Your task to perform on an android device: What is the capital of the United Kingdom? Image 0: 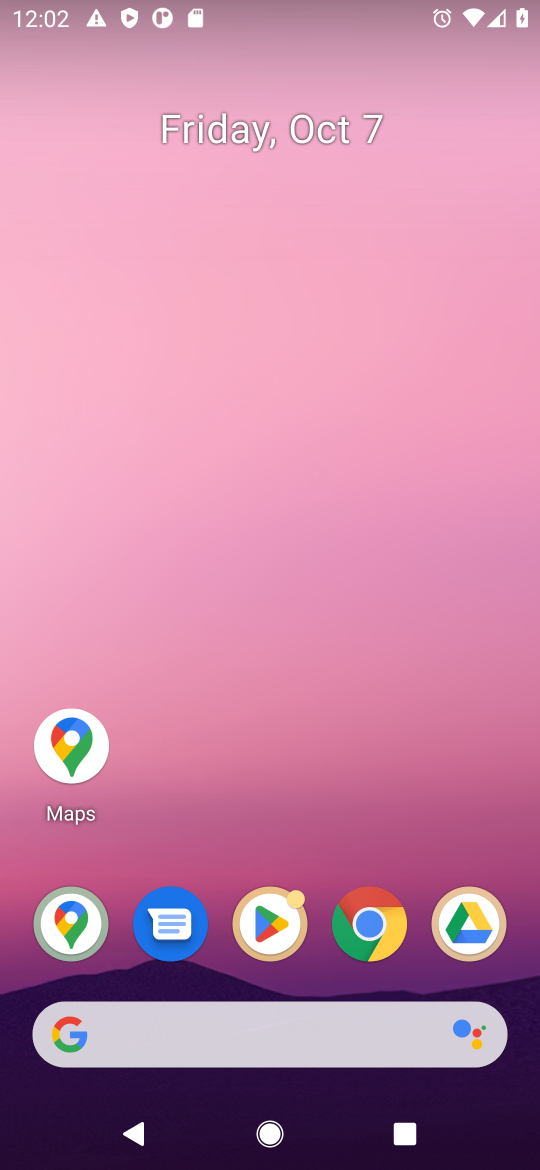
Step 0: click (363, 920)
Your task to perform on an android device: What is the capital of the United Kingdom? Image 1: 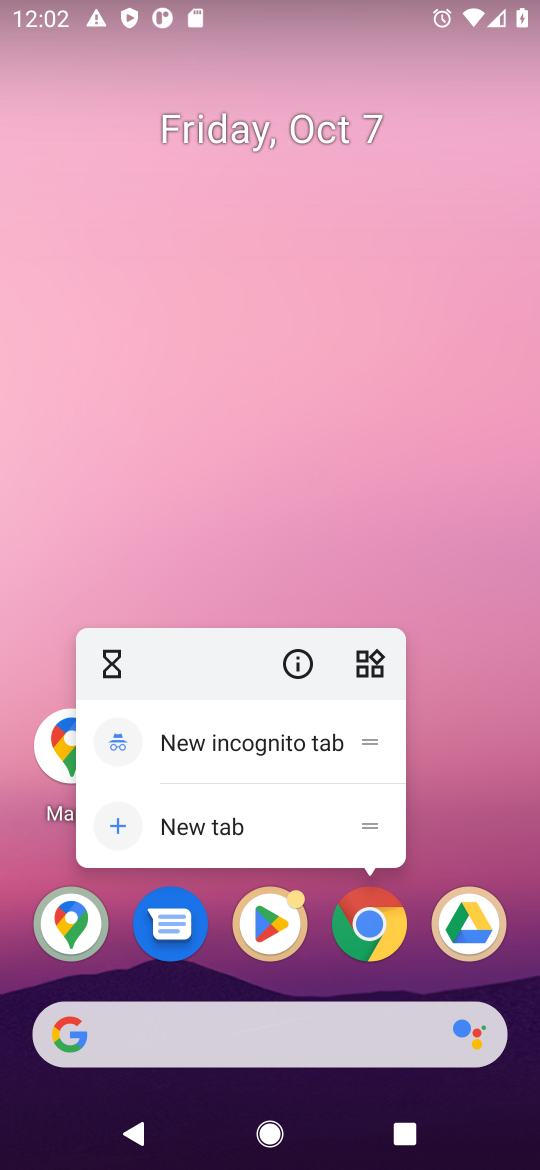
Step 1: click (374, 918)
Your task to perform on an android device: What is the capital of the United Kingdom? Image 2: 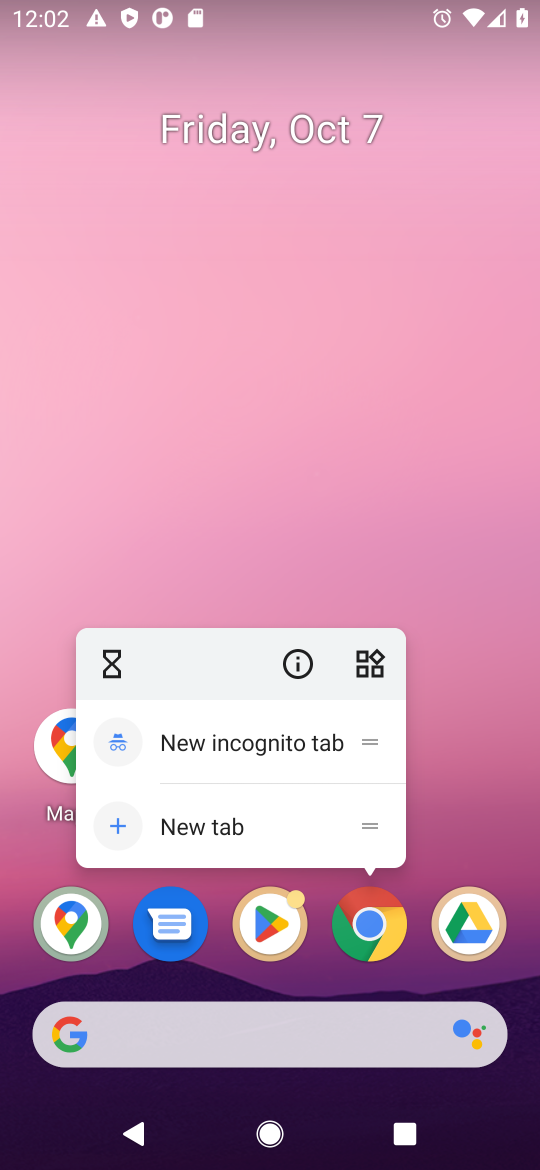
Step 2: click (374, 918)
Your task to perform on an android device: What is the capital of the United Kingdom? Image 3: 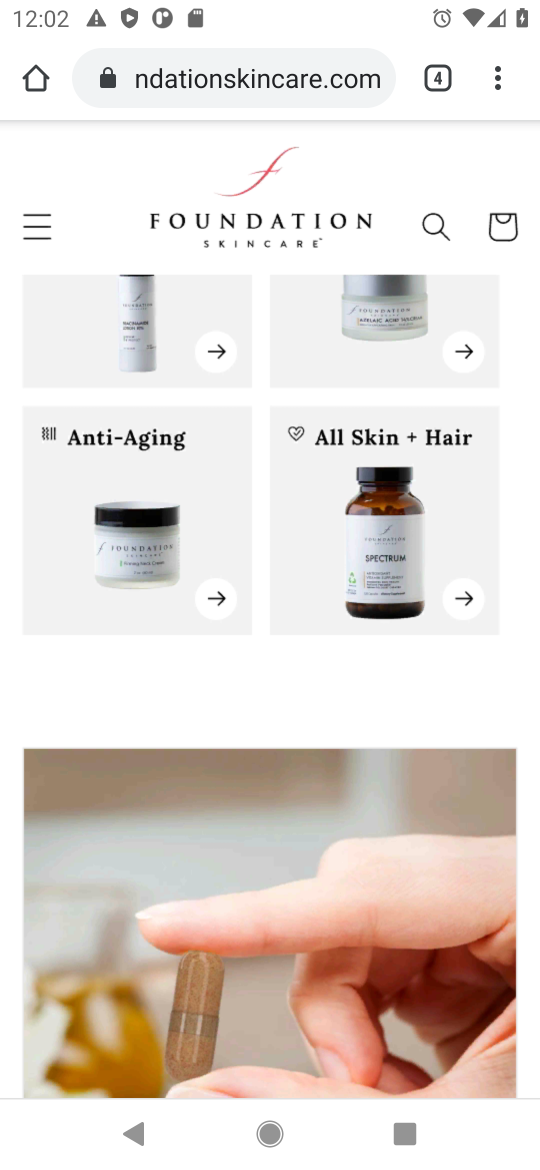
Step 3: click (321, 77)
Your task to perform on an android device: What is the capital of the United Kingdom? Image 4: 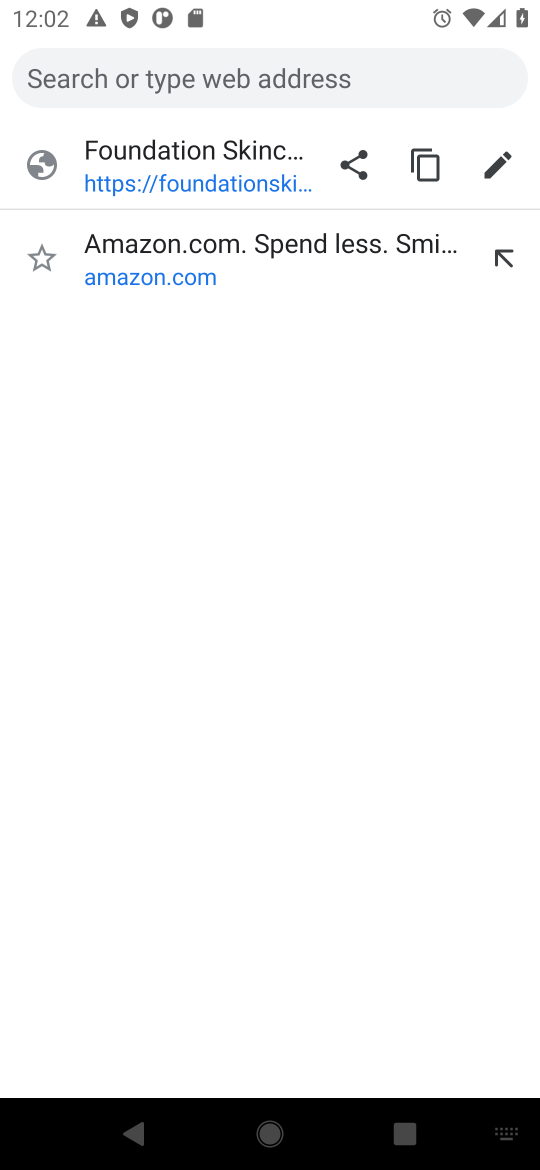
Step 4: click (389, 1167)
Your task to perform on an android device: What is the capital of the United Kingdom? Image 5: 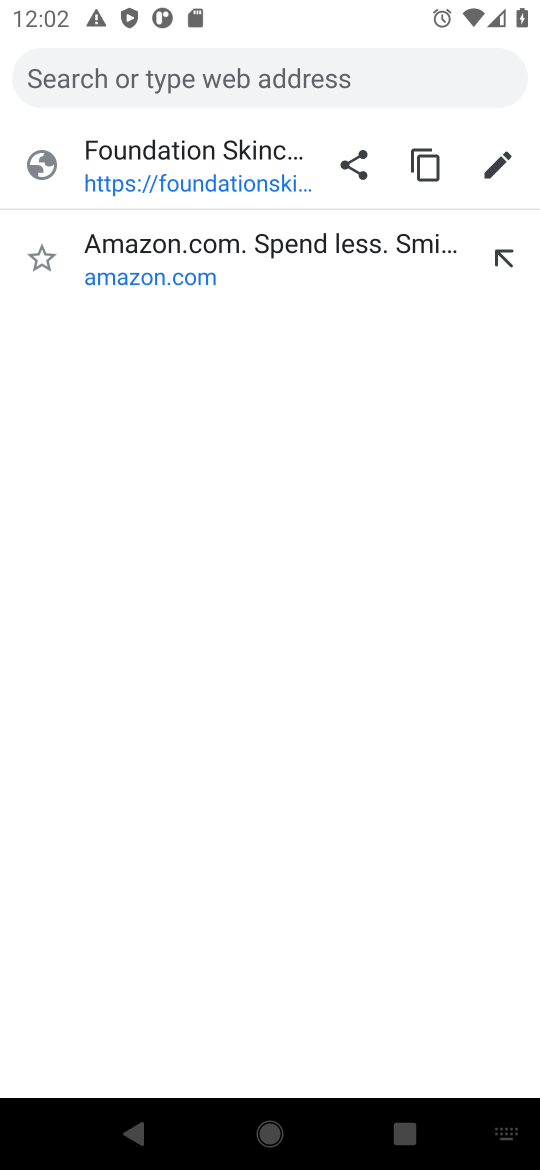
Step 5: type "capital of the United Kingdom"
Your task to perform on an android device: What is the capital of the United Kingdom? Image 6: 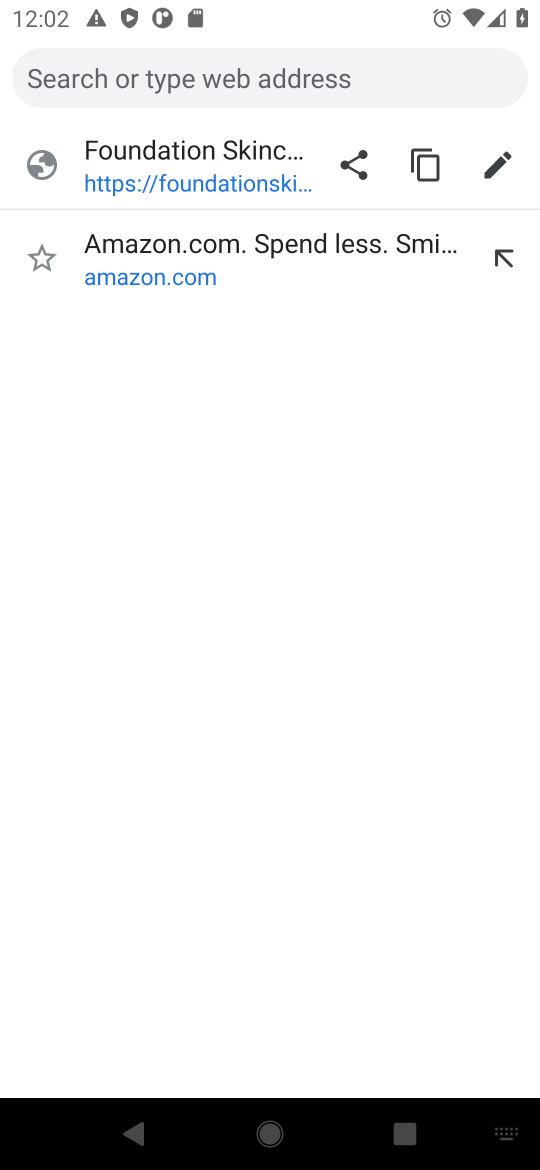
Step 6: click (535, 381)
Your task to perform on an android device: What is the capital of the United Kingdom? Image 7: 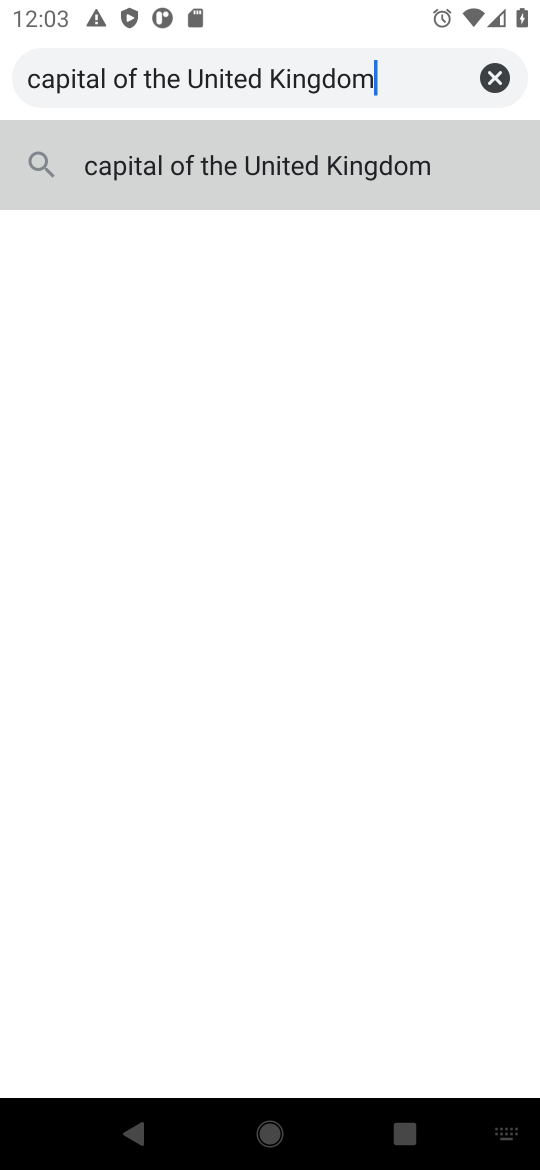
Step 7: click (257, 159)
Your task to perform on an android device: What is the capital of the United Kingdom? Image 8: 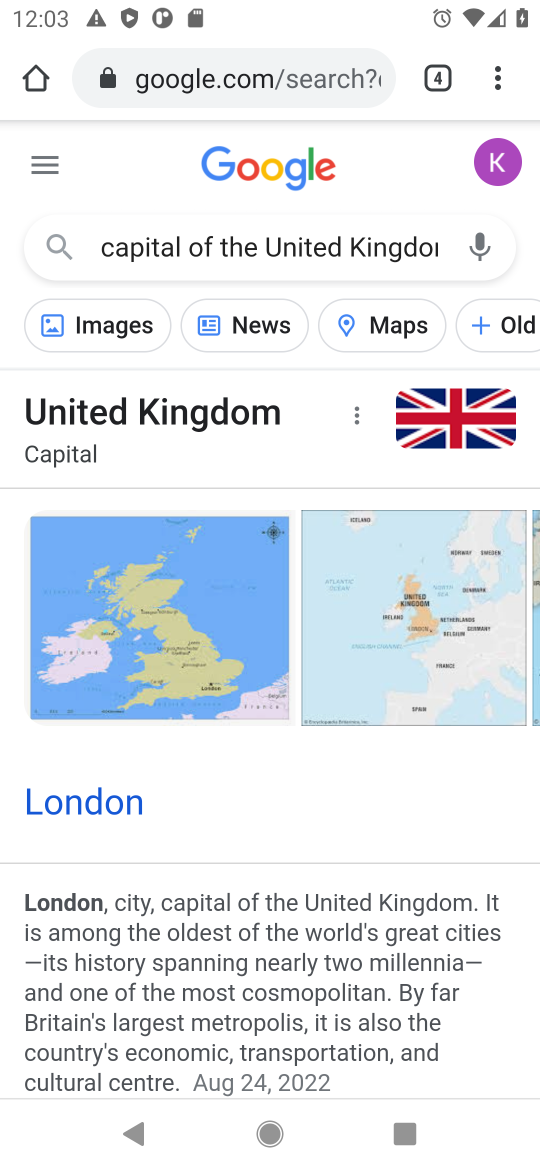
Step 8: drag from (278, 850) to (451, 369)
Your task to perform on an android device: What is the capital of the United Kingdom? Image 9: 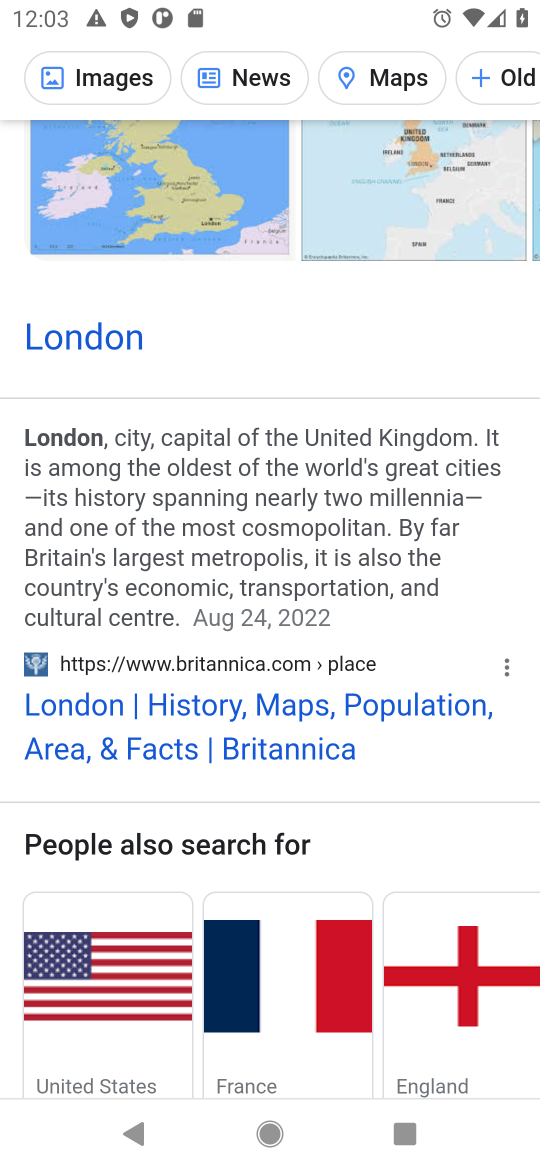
Step 9: click (247, 697)
Your task to perform on an android device: What is the capital of the United Kingdom? Image 10: 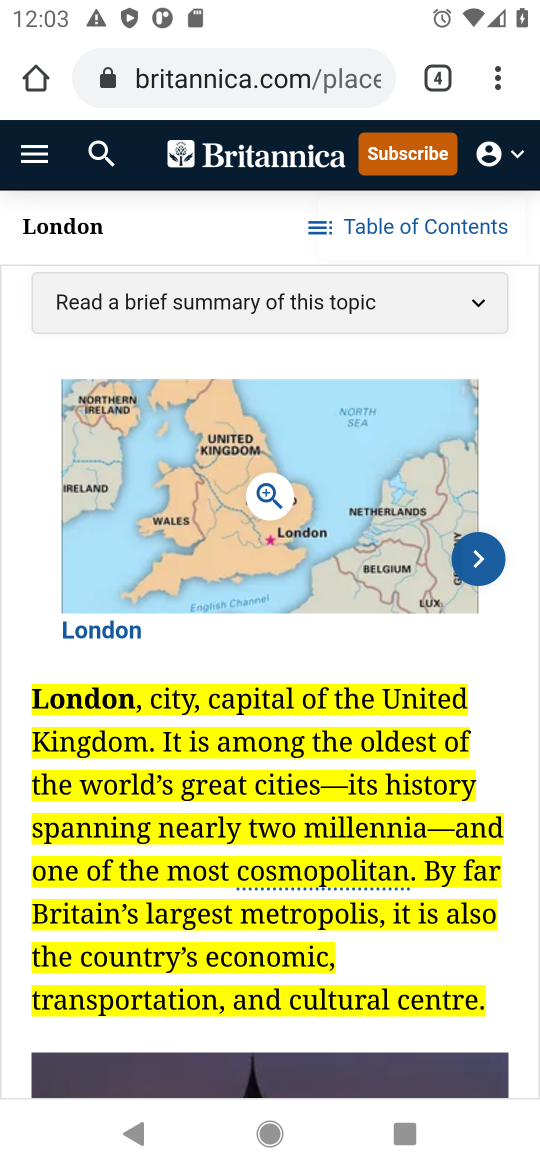
Step 10: task complete